Your task to perform on an android device: Go to battery settings Image 0: 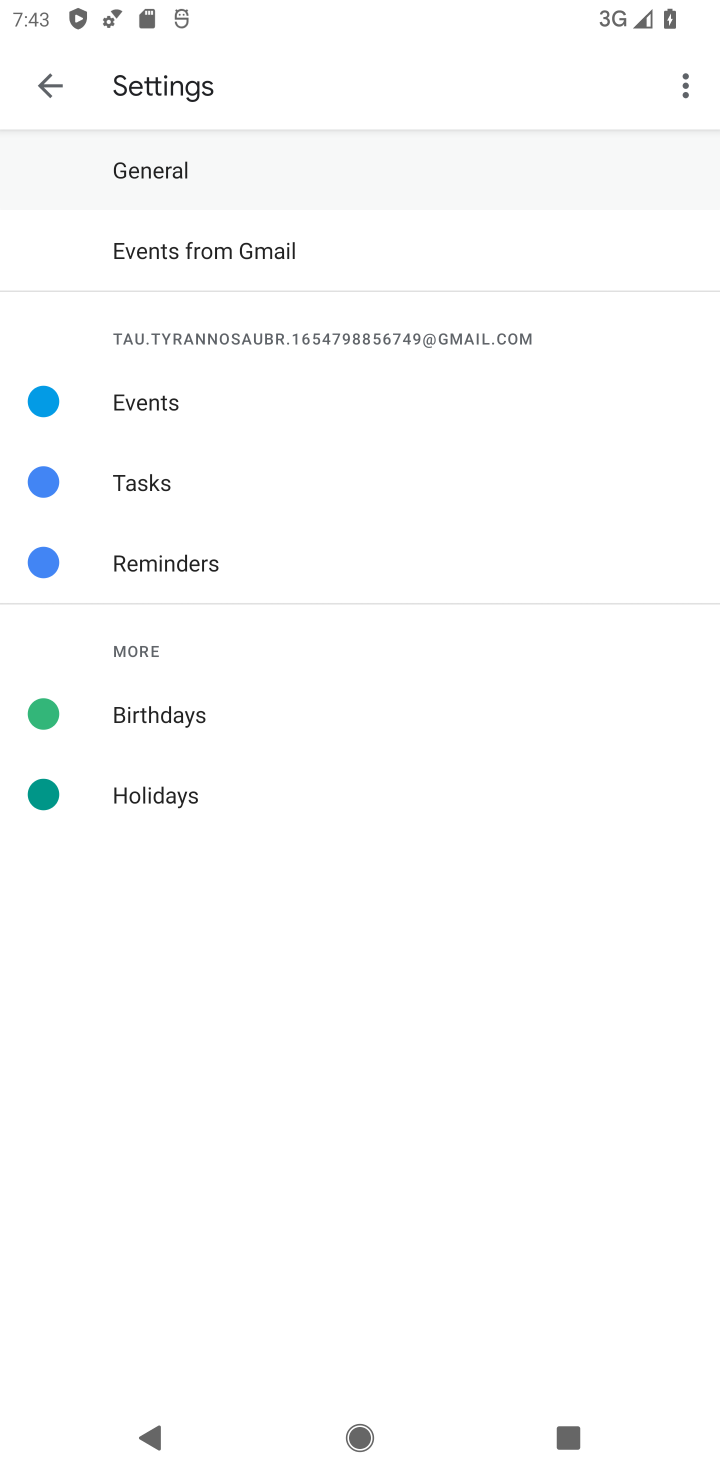
Step 0: press home button
Your task to perform on an android device: Go to battery settings Image 1: 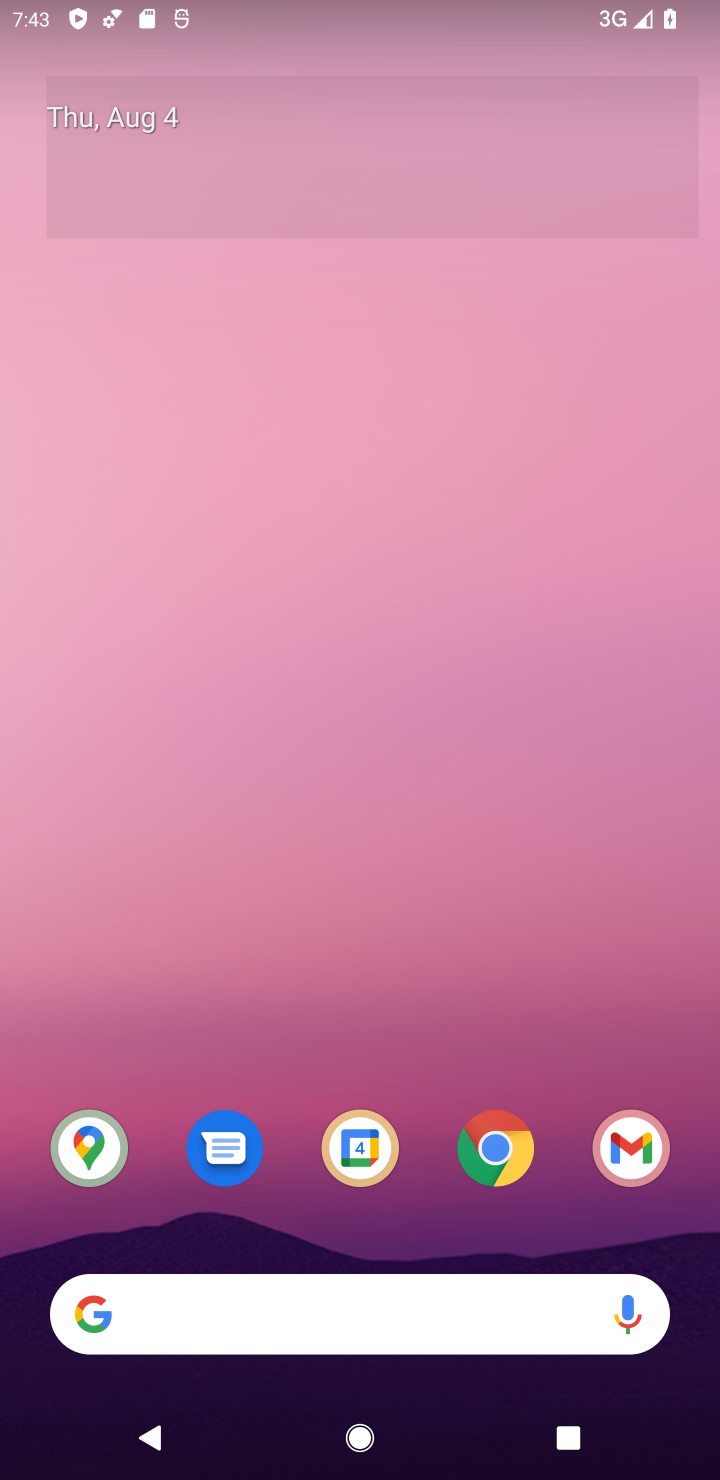
Step 1: drag from (554, 1074) to (520, 190)
Your task to perform on an android device: Go to battery settings Image 2: 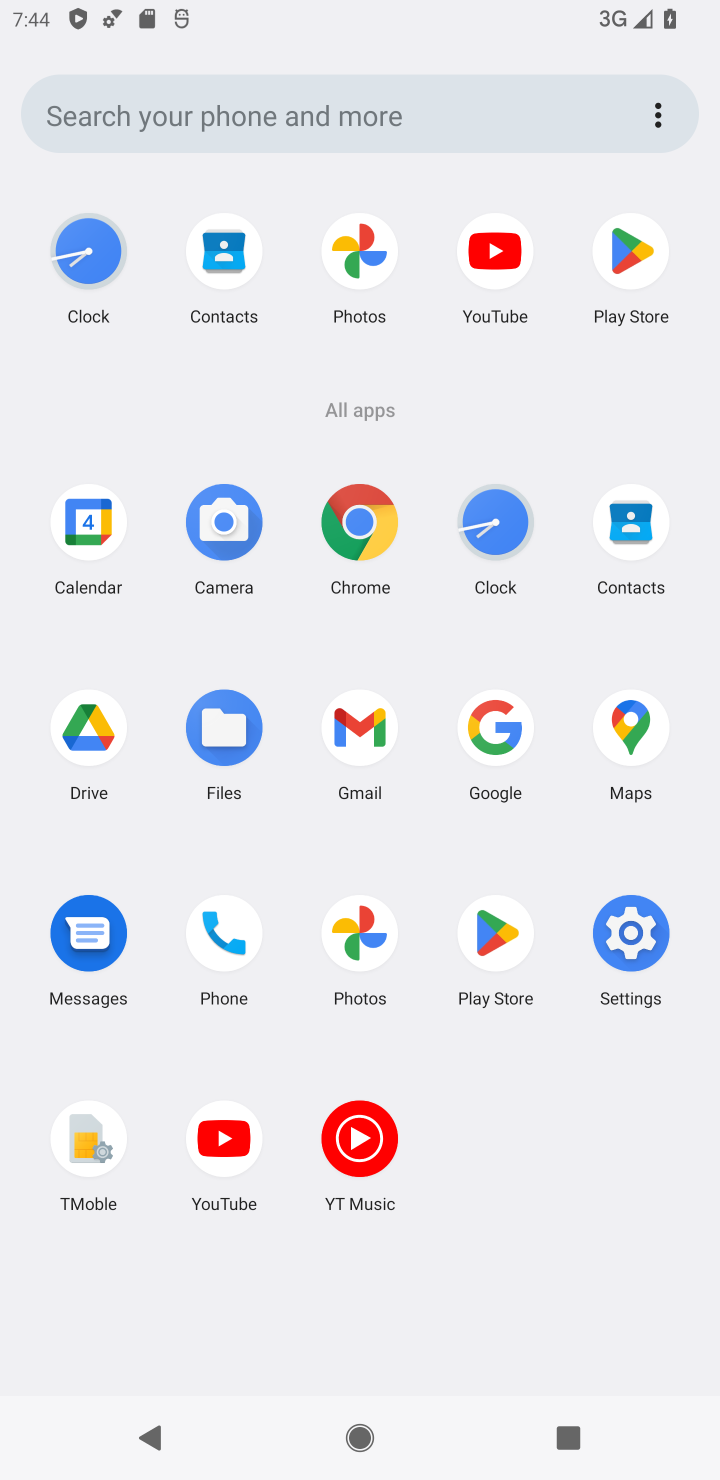
Step 2: click (623, 925)
Your task to perform on an android device: Go to battery settings Image 3: 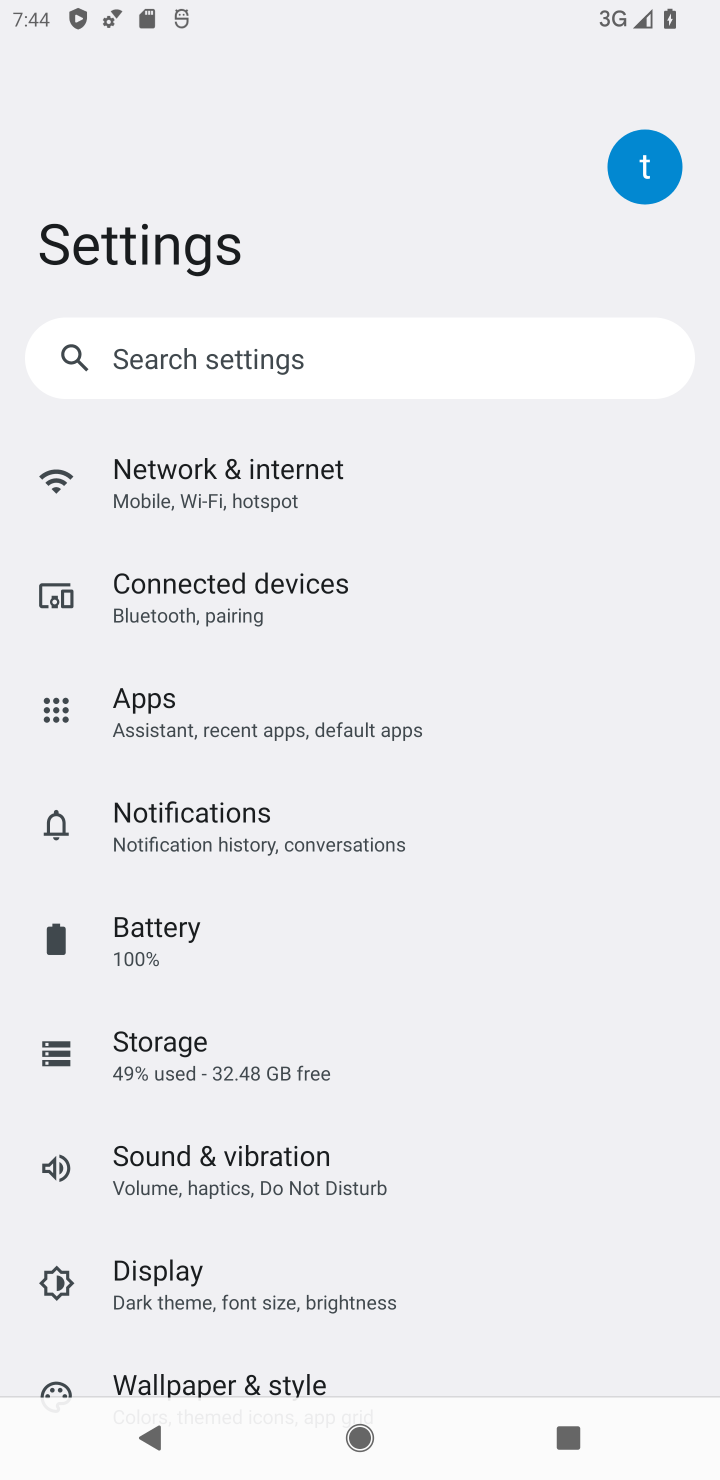
Step 3: click (436, 952)
Your task to perform on an android device: Go to battery settings Image 4: 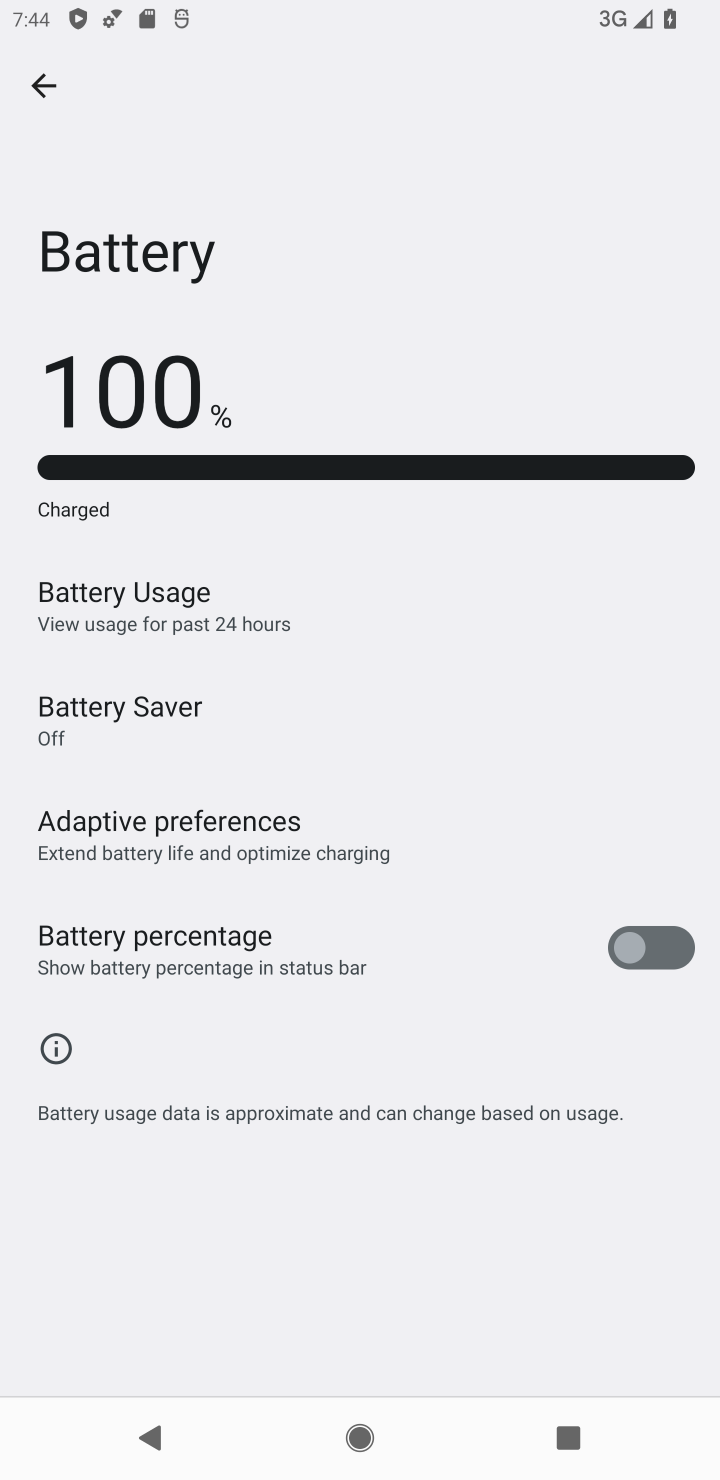
Step 4: task complete